Your task to perform on an android device: Search for "energizer triple a" on target, select the first entry, add it to the cart, then select checkout. Image 0: 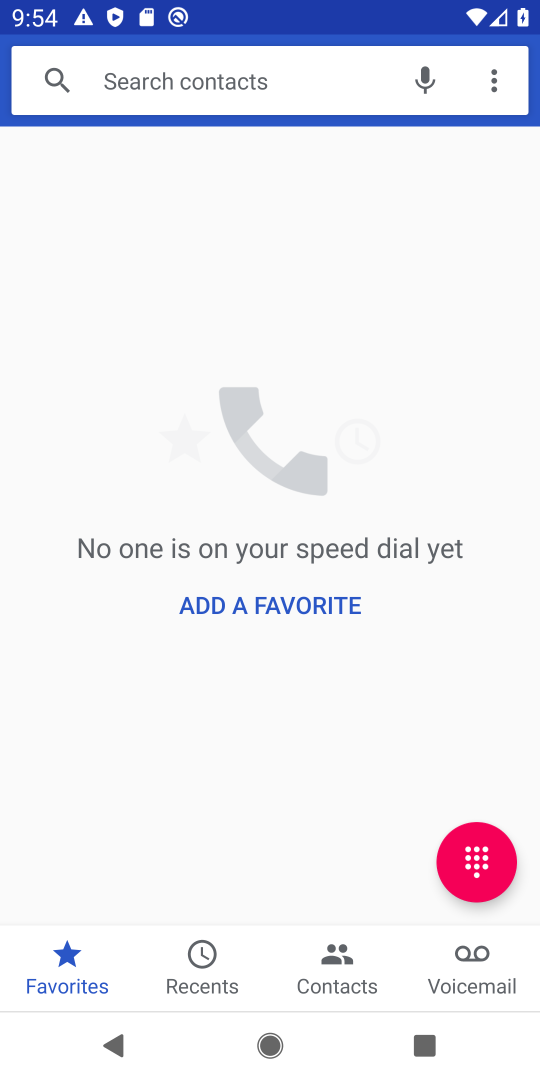
Step 0: press home button
Your task to perform on an android device: Search for "energizer triple a" on target, select the first entry, add it to the cart, then select checkout. Image 1: 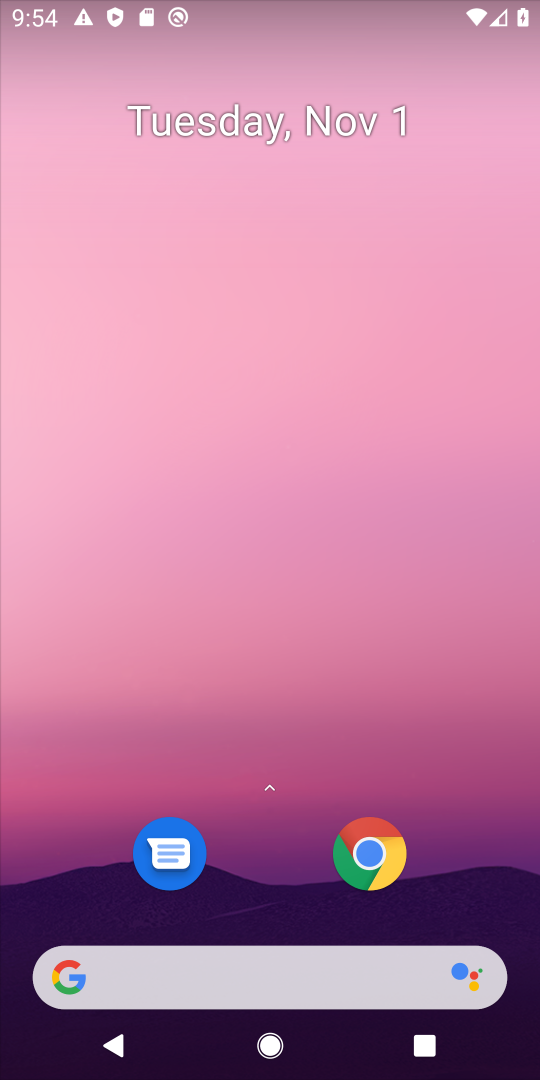
Step 1: click (224, 991)
Your task to perform on an android device: Search for "energizer triple a" on target, select the first entry, add it to the cart, then select checkout. Image 2: 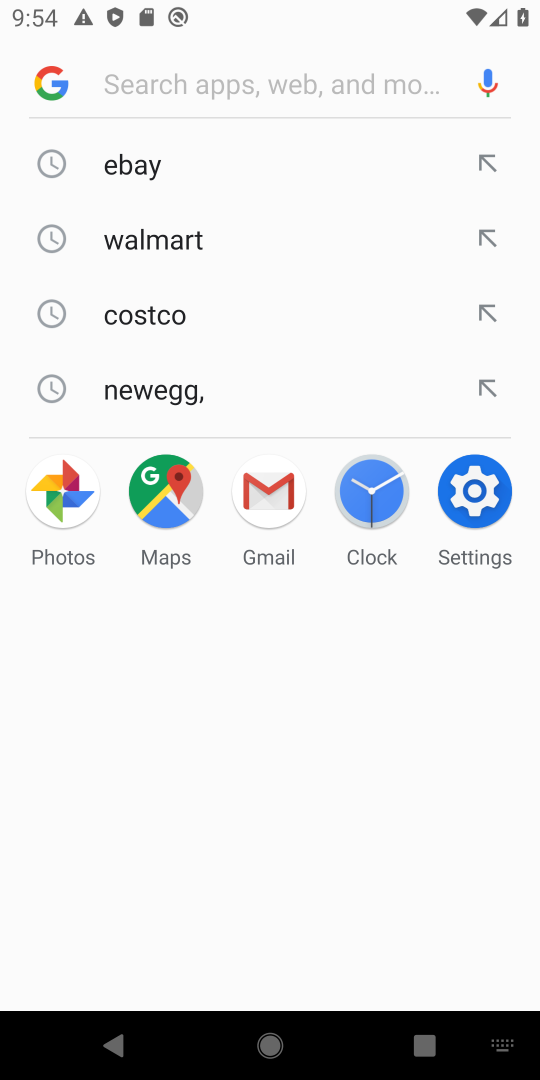
Step 2: type "target"
Your task to perform on an android device: Search for "energizer triple a" on target, select the first entry, add it to the cart, then select checkout. Image 3: 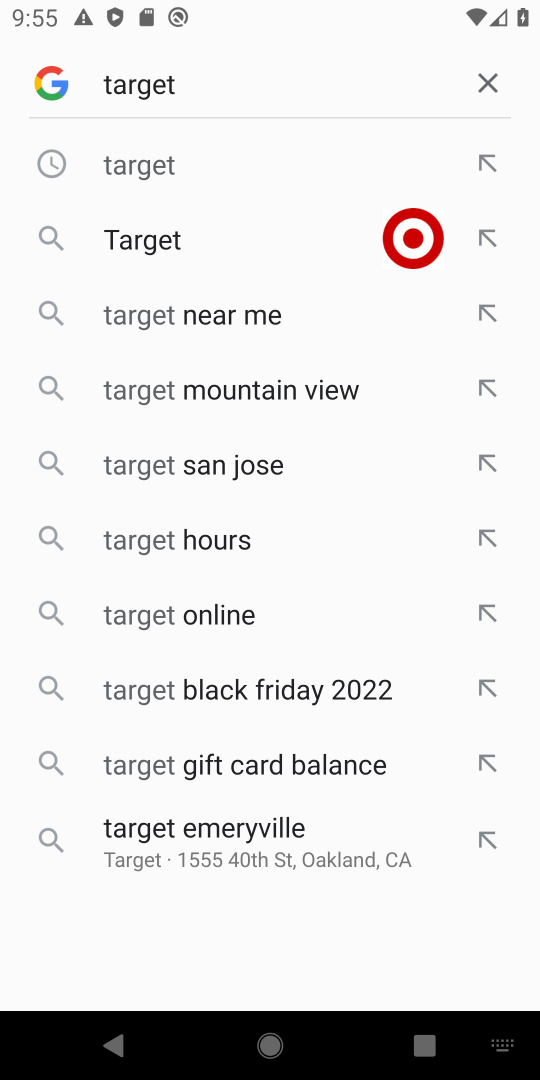
Step 3: click (183, 171)
Your task to perform on an android device: Search for "energizer triple a" on target, select the first entry, add it to the cart, then select checkout. Image 4: 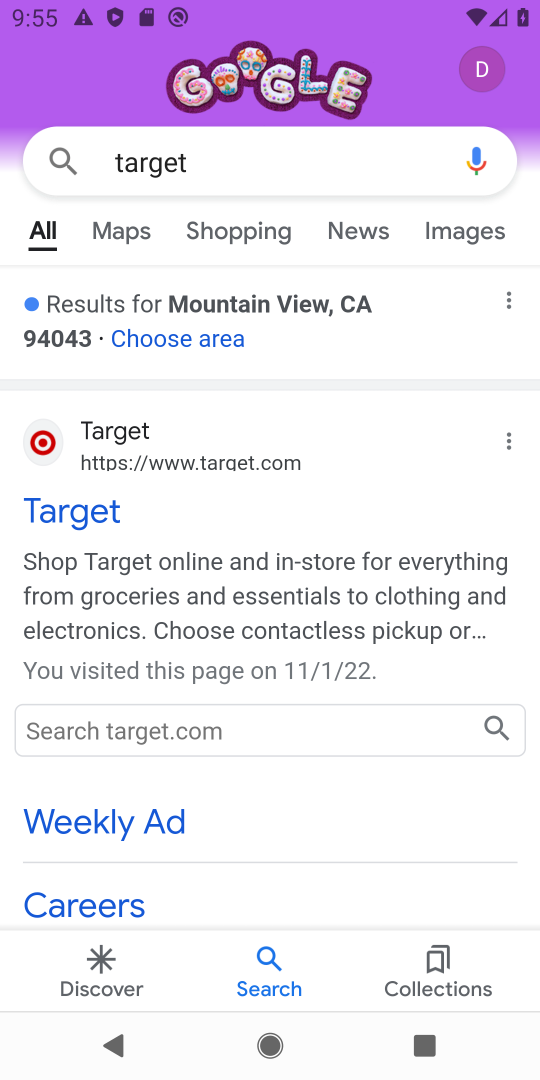
Step 4: click (49, 503)
Your task to perform on an android device: Search for "energizer triple a" on target, select the first entry, add it to the cart, then select checkout. Image 5: 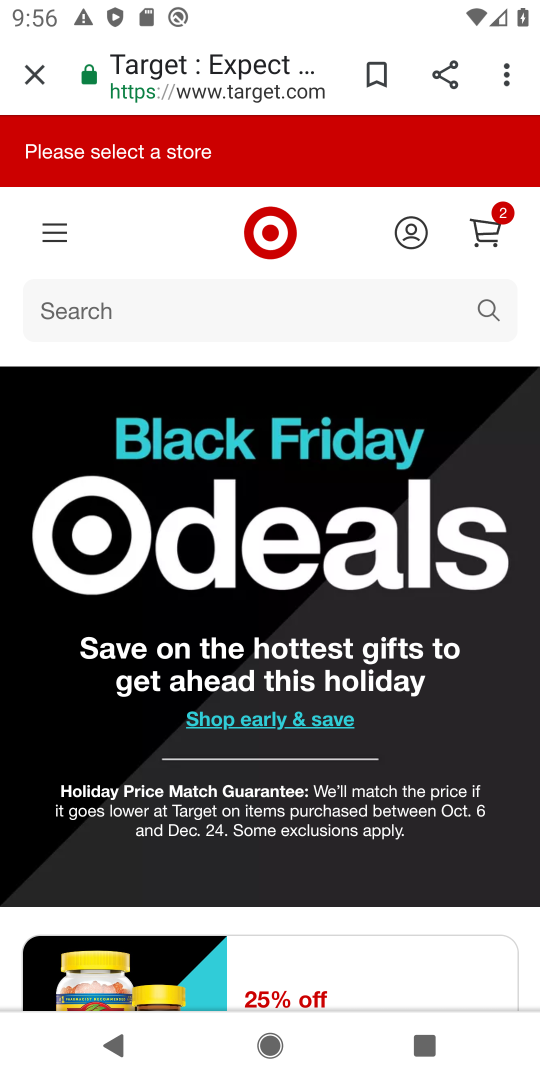
Step 5: click (340, 309)
Your task to perform on an android device: Search for "energizer triple a" on target, select the first entry, add it to the cart, then select checkout. Image 6: 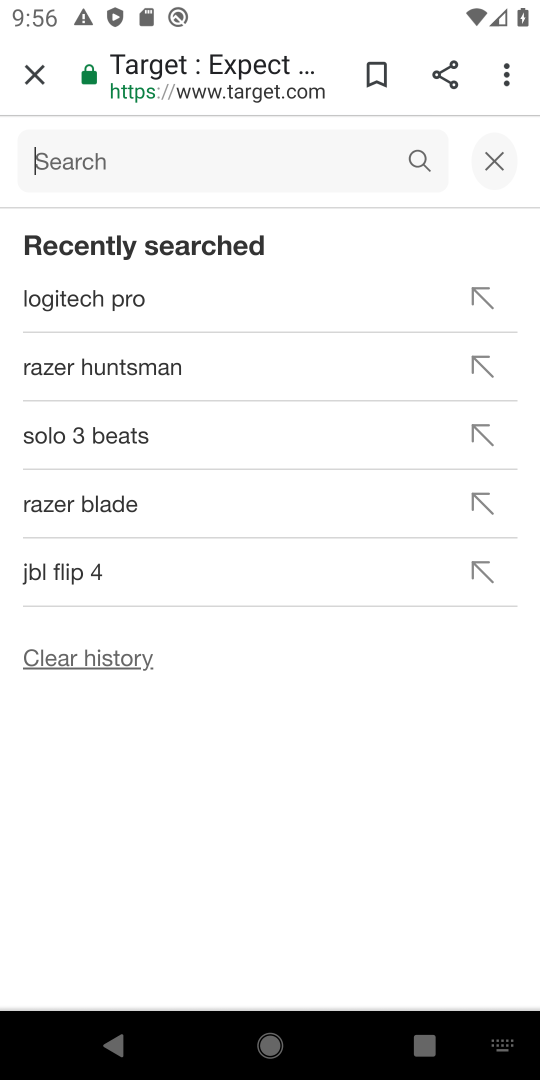
Step 6: type "energier triple"
Your task to perform on an android device: Search for "energizer triple a" on target, select the first entry, add it to the cart, then select checkout. Image 7: 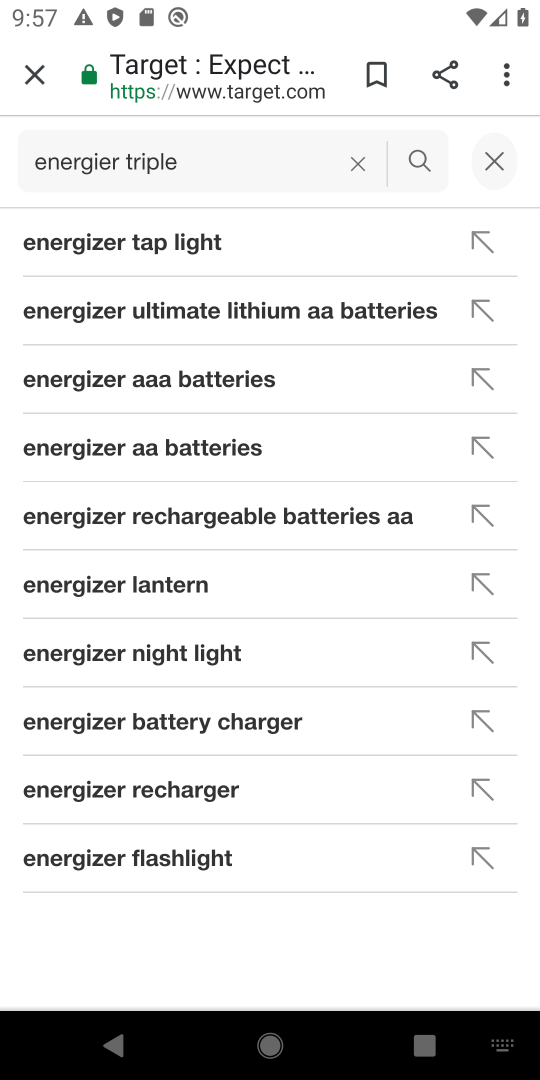
Step 7: type "a"
Your task to perform on an android device: Search for "energizer triple a" on target, select the first entry, add it to the cart, then select checkout. Image 8: 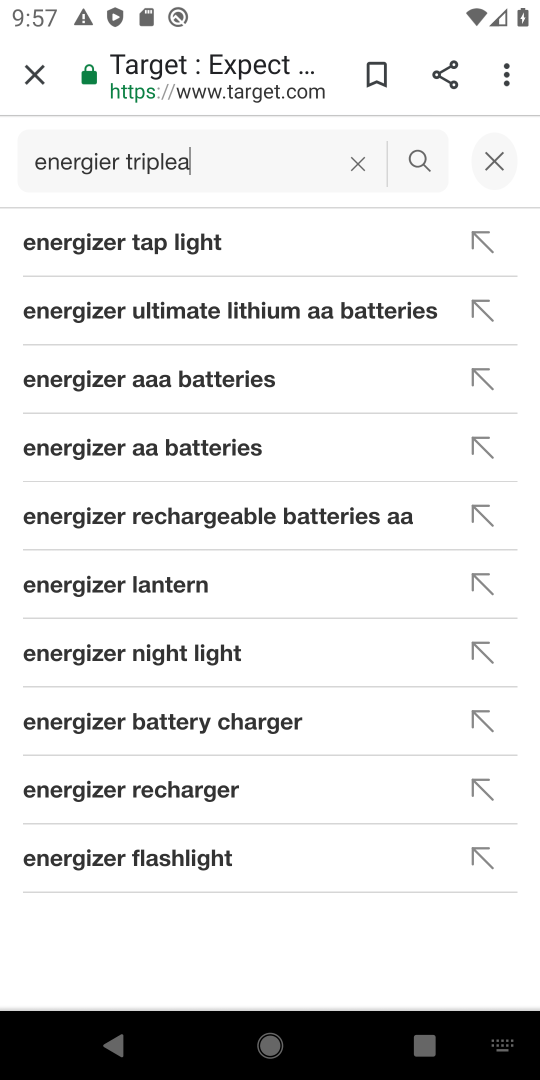
Step 8: click (418, 162)
Your task to perform on an android device: Search for "energizer triple a" on target, select the first entry, add it to the cart, then select checkout. Image 9: 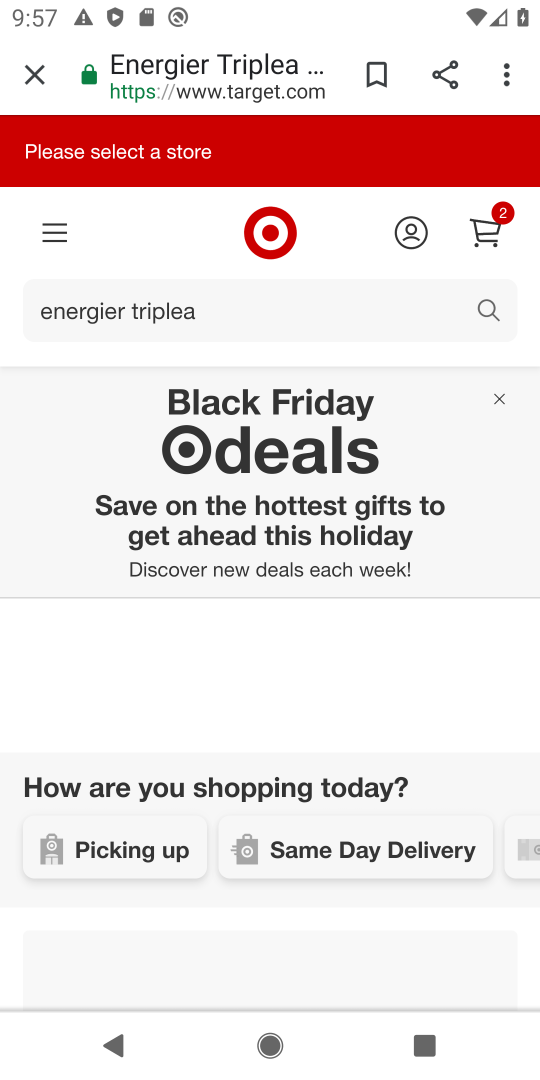
Step 9: task complete